Your task to perform on an android device: delete browsing data in the chrome app Image 0: 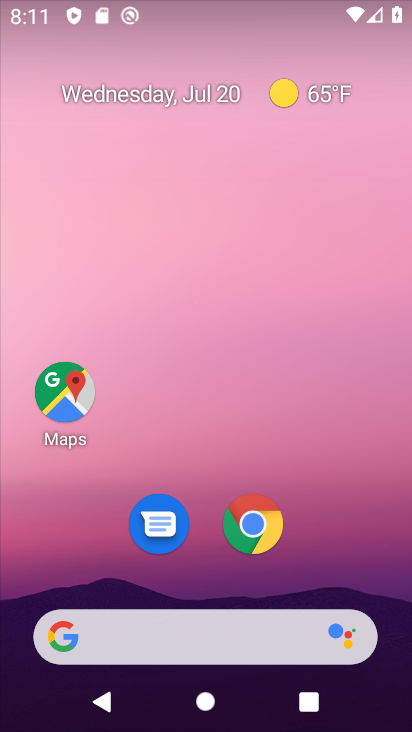
Step 0: click (264, 521)
Your task to perform on an android device: delete browsing data in the chrome app Image 1: 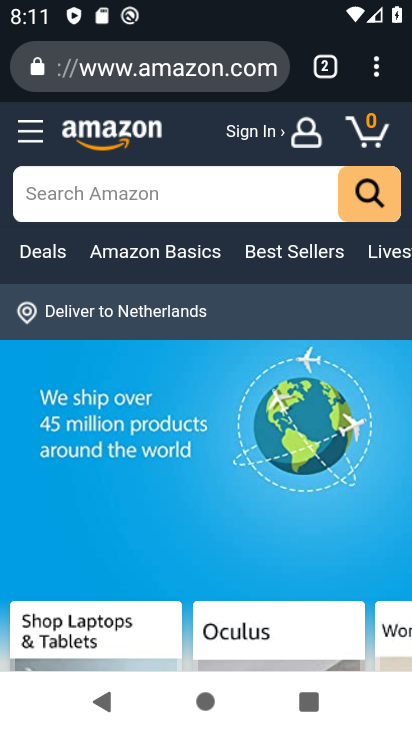
Step 1: click (377, 72)
Your task to perform on an android device: delete browsing data in the chrome app Image 2: 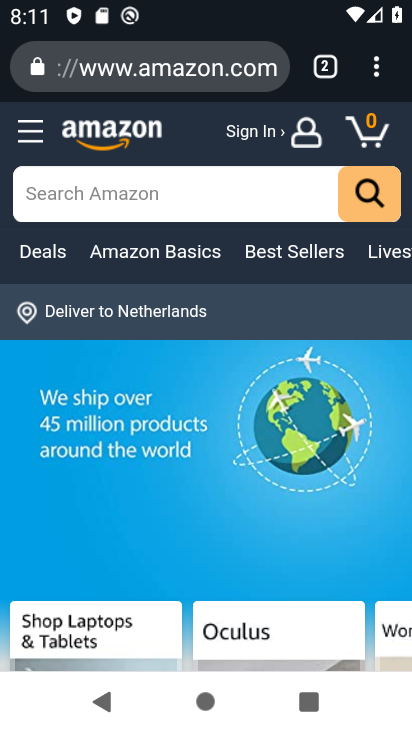
Step 2: click (377, 72)
Your task to perform on an android device: delete browsing data in the chrome app Image 3: 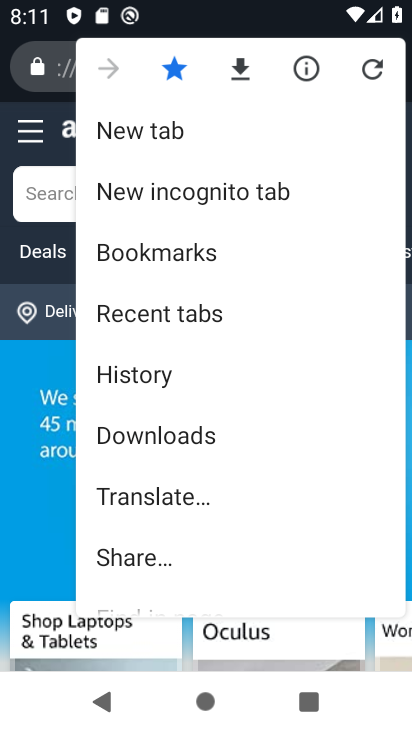
Step 3: click (154, 373)
Your task to perform on an android device: delete browsing data in the chrome app Image 4: 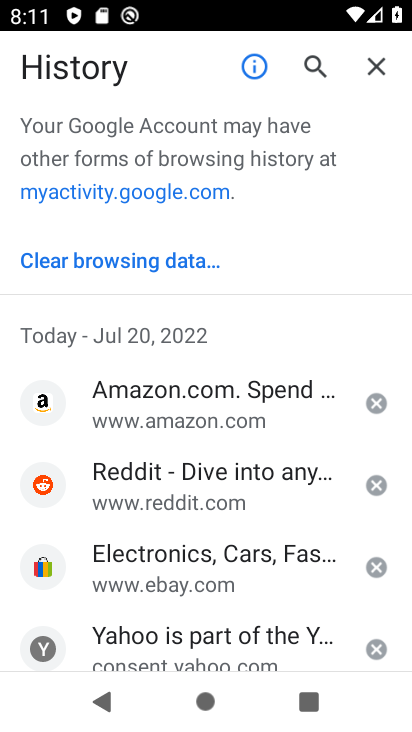
Step 4: click (157, 252)
Your task to perform on an android device: delete browsing data in the chrome app Image 5: 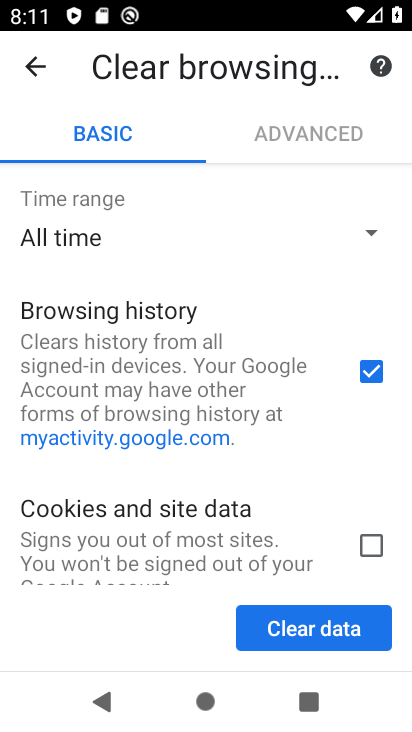
Step 5: click (370, 541)
Your task to perform on an android device: delete browsing data in the chrome app Image 6: 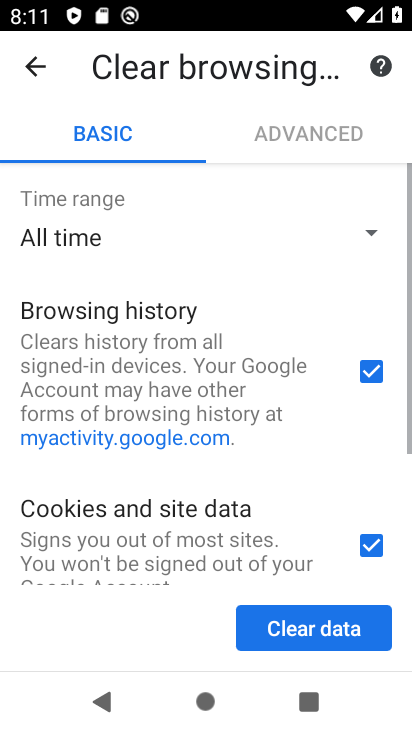
Step 6: drag from (266, 463) to (289, 218)
Your task to perform on an android device: delete browsing data in the chrome app Image 7: 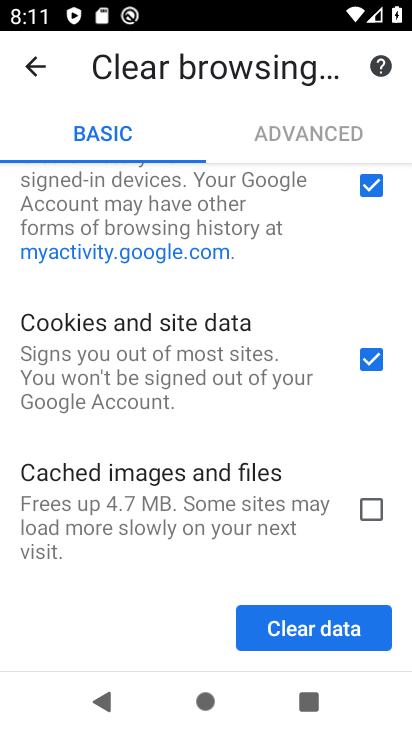
Step 7: click (371, 498)
Your task to perform on an android device: delete browsing data in the chrome app Image 8: 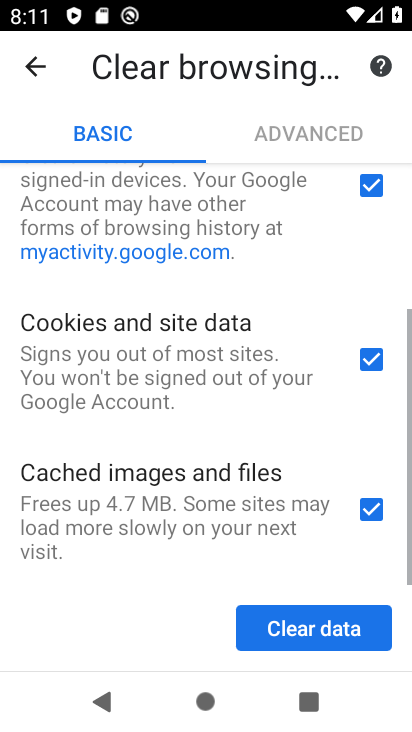
Step 8: click (351, 627)
Your task to perform on an android device: delete browsing data in the chrome app Image 9: 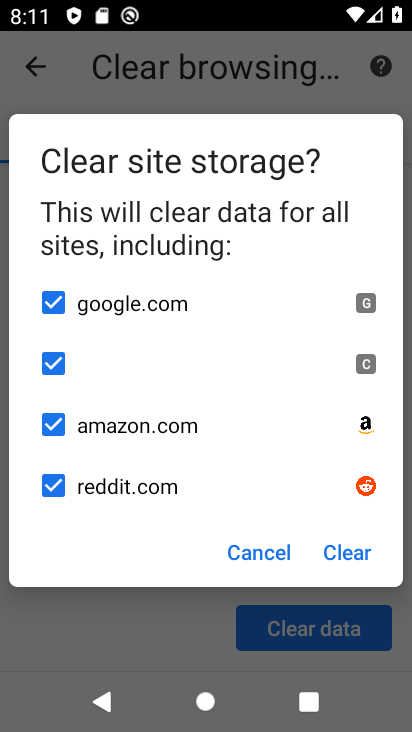
Step 9: click (354, 540)
Your task to perform on an android device: delete browsing data in the chrome app Image 10: 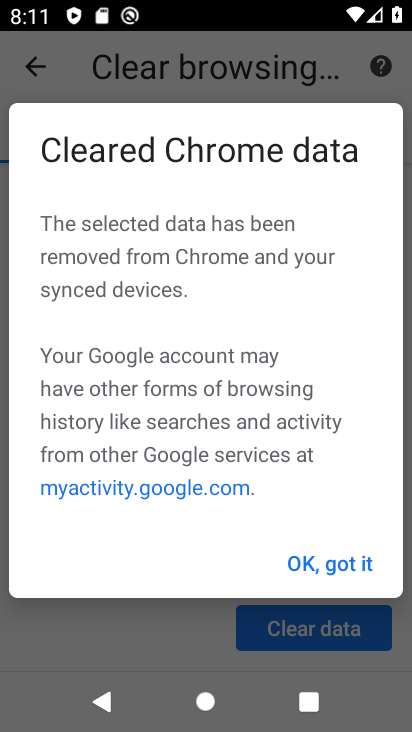
Step 10: click (346, 558)
Your task to perform on an android device: delete browsing data in the chrome app Image 11: 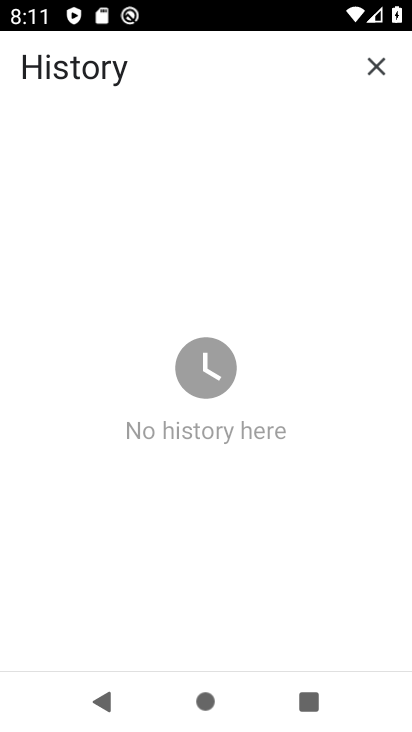
Step 11: task complete